Your task to perform on an android device: open app "Viber Messenger" Image 0: 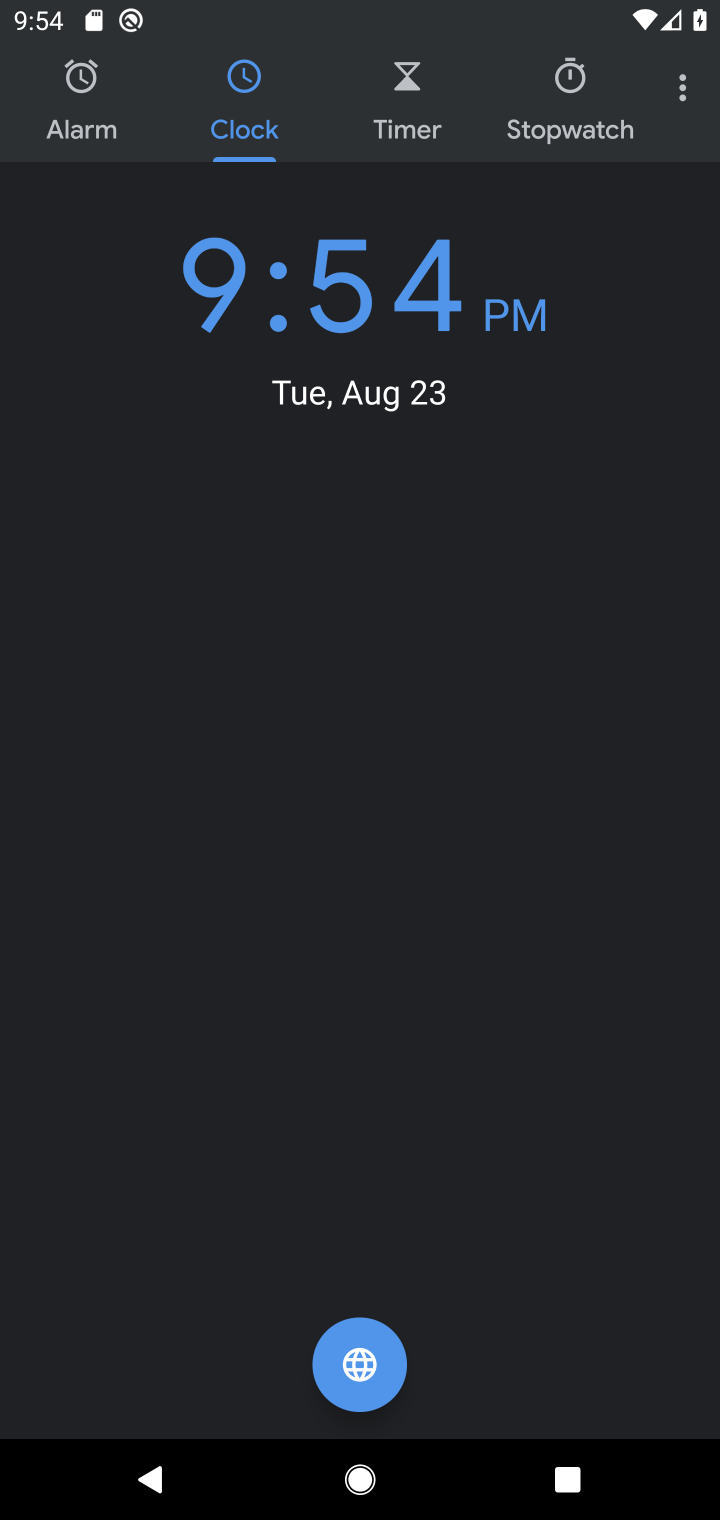
Step 0: press home button
Your task to perform on an android device: open app "Viber Messenger" Image 1: 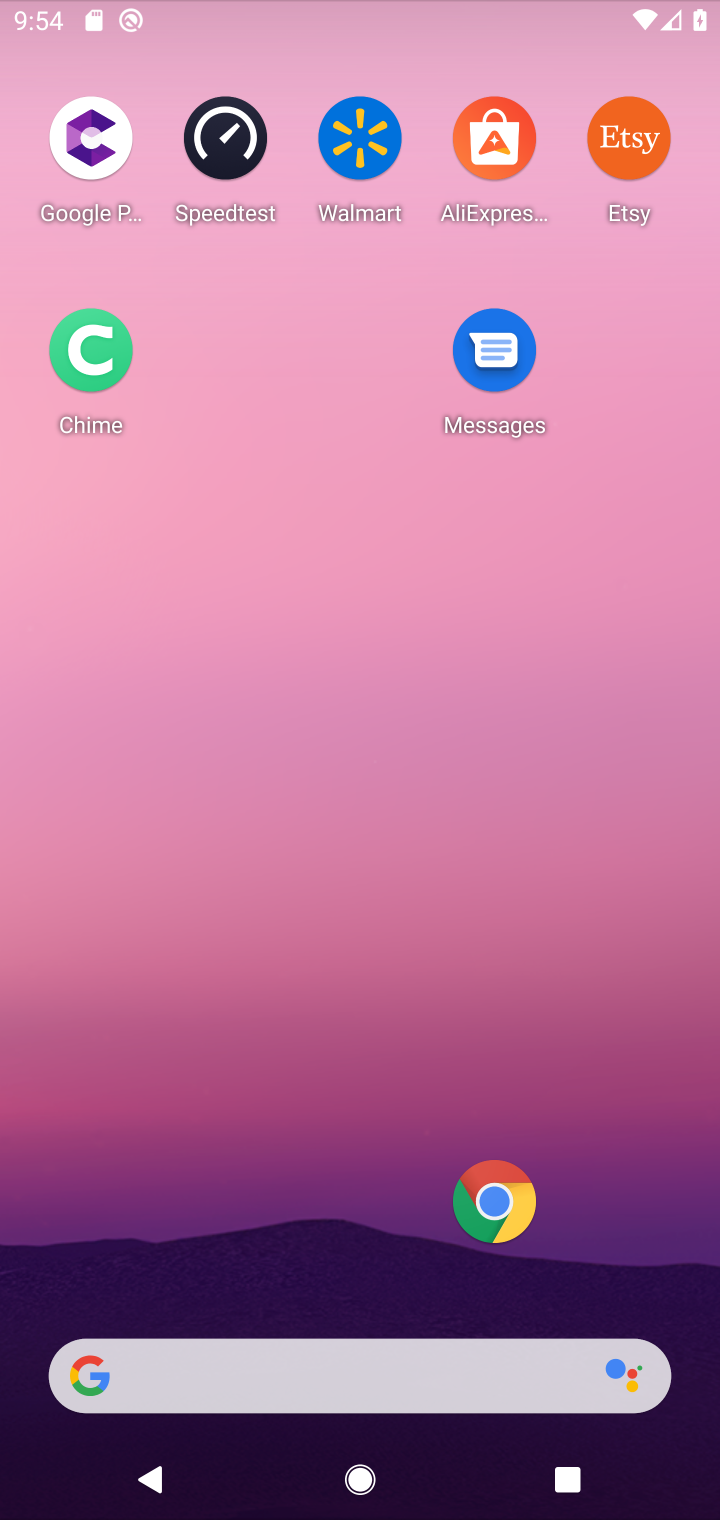
Step 1: drag from (286, 1090) to (335, 261)
Your task to perform on an android device: open app "Viber Messenger" Image 2: 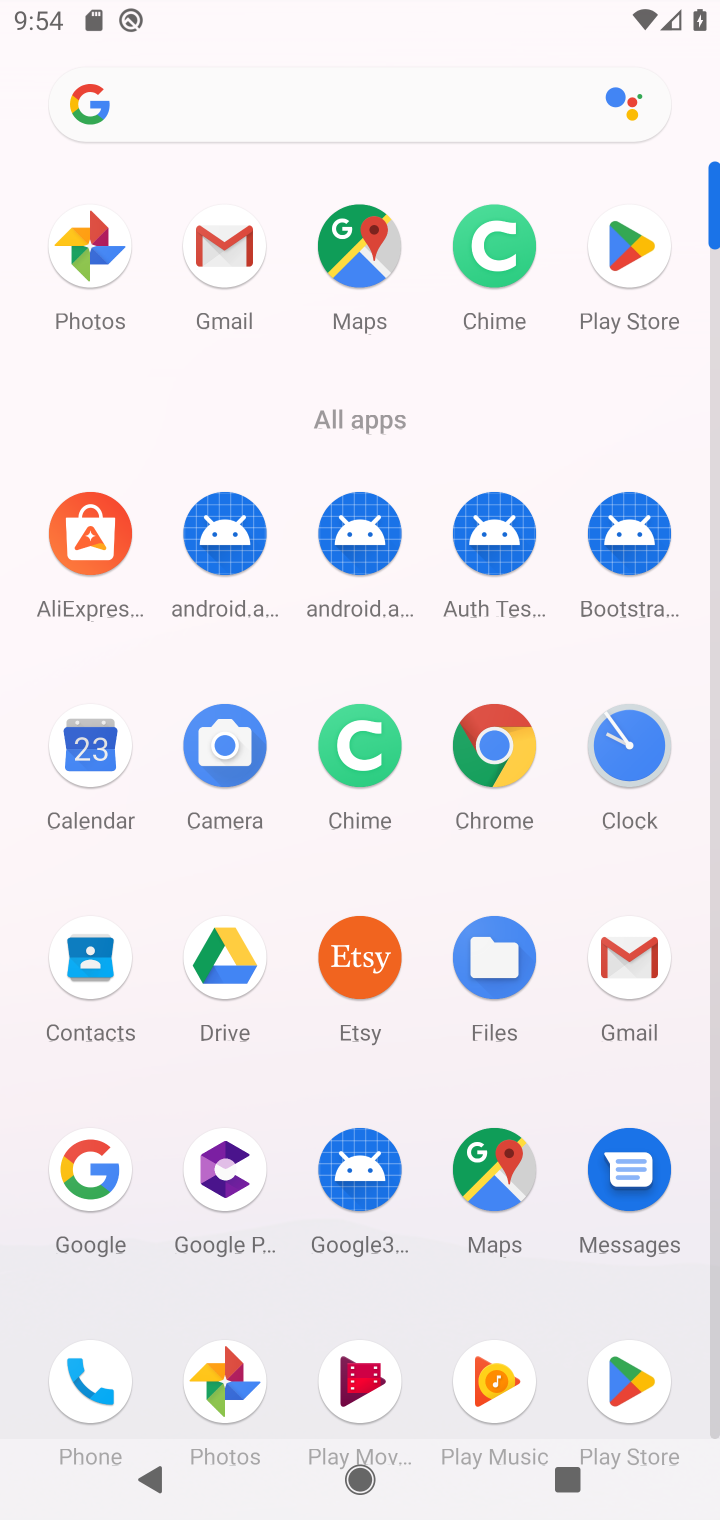
Step 2: click (629, 240)
Your task to perform on an android device: open app "Viber Messenger" Image 3: 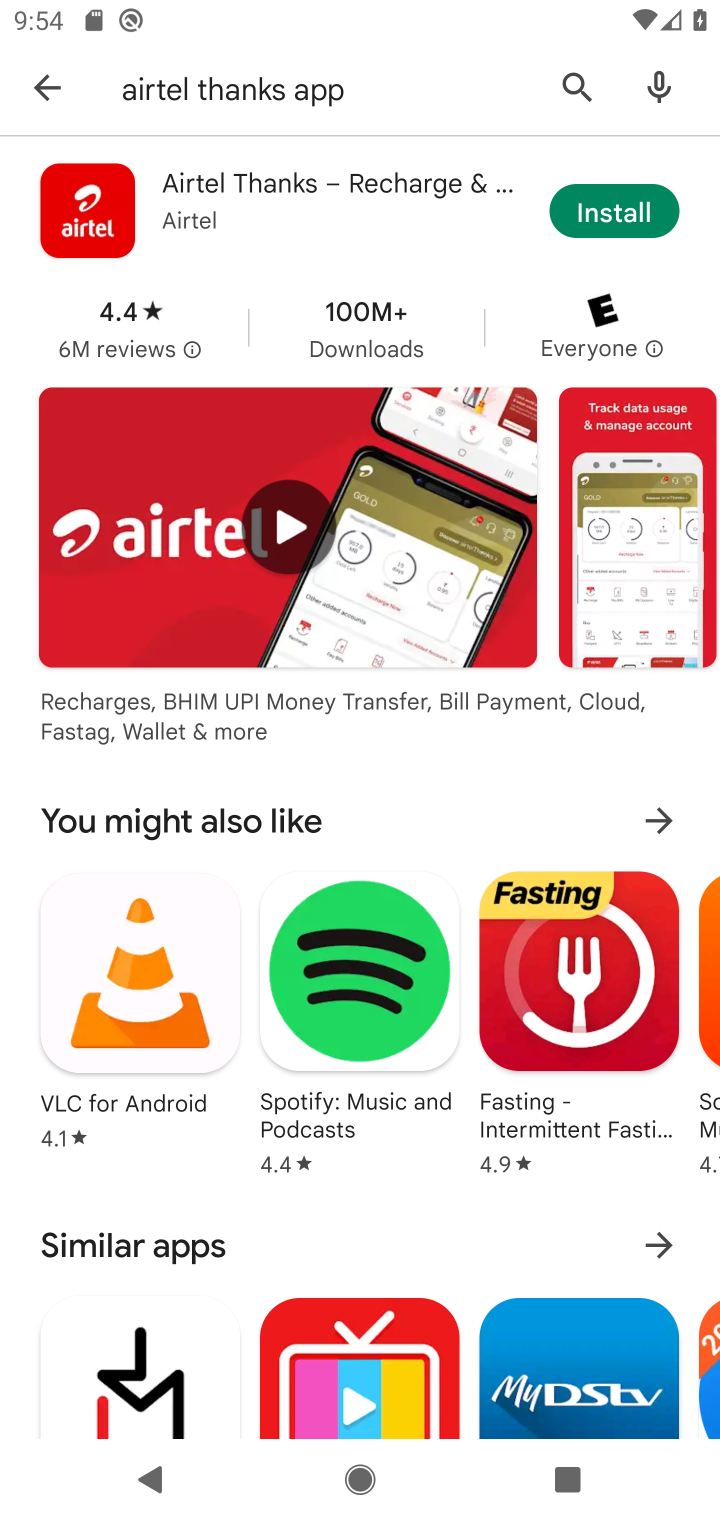
Step 3: click (59, 77)
Your task to perform on an android device: open app "Viber Messenger" Image 4: 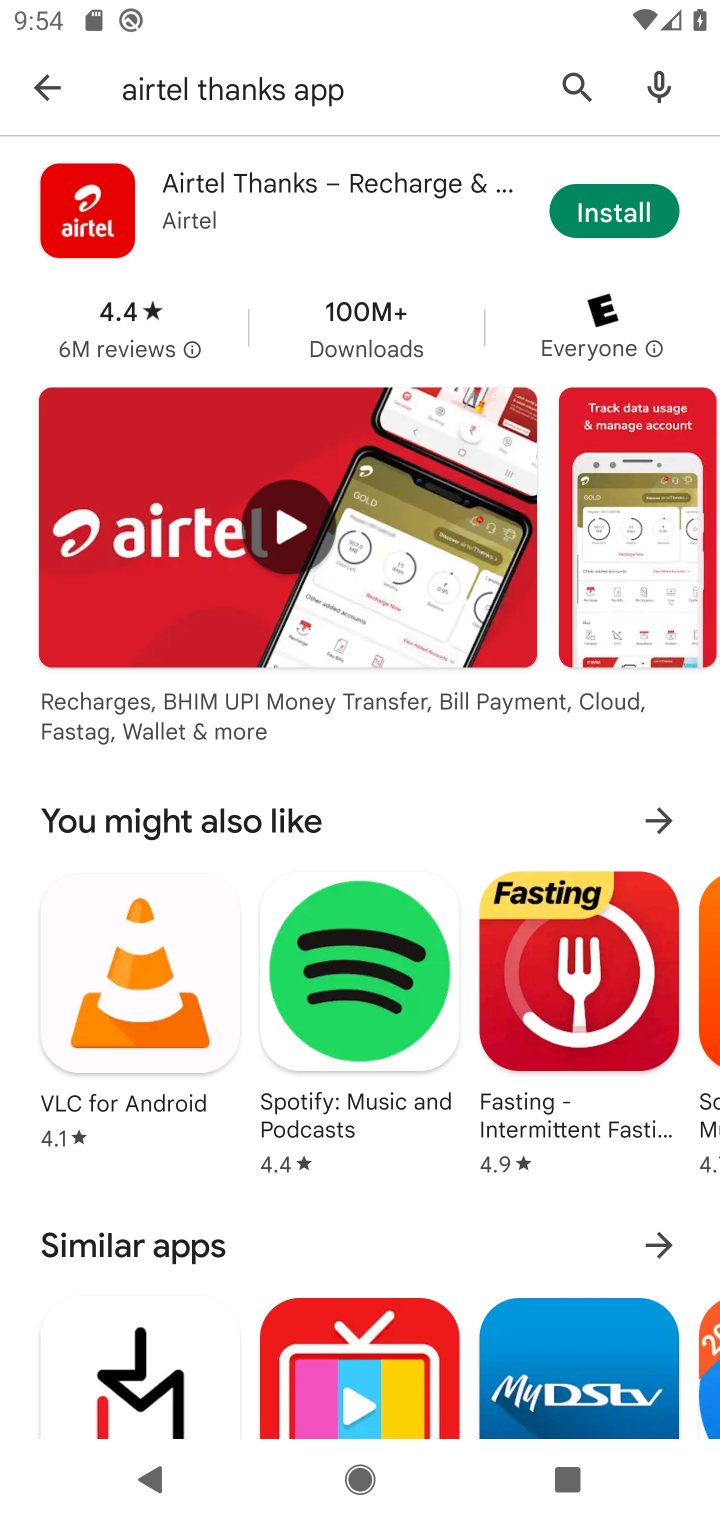
Step 4: click (59, 77)
Your task to perform on an android device: open app "Viber Messenger" Image 5: 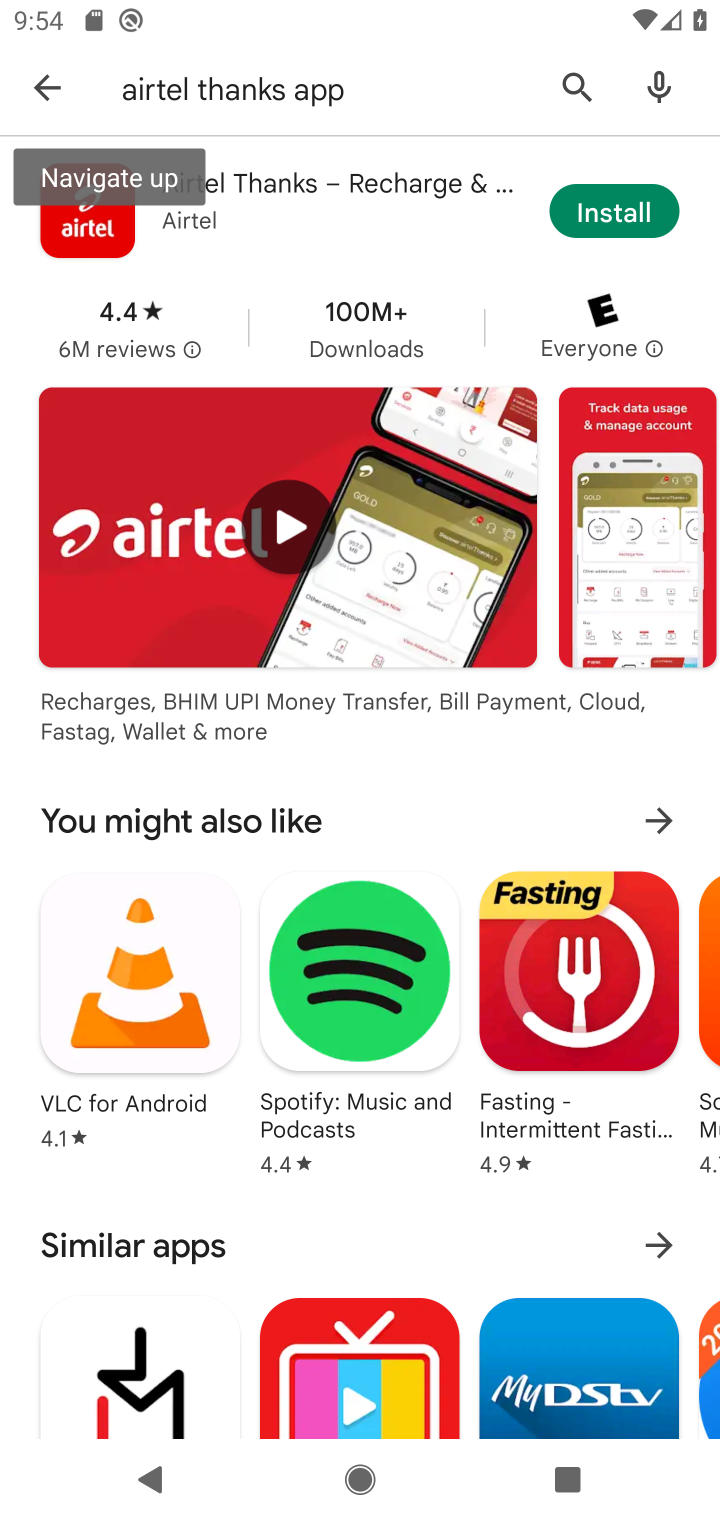
Step 5: click (575, 88)
Your task to perform on an android device: open app "Viber Messenger" Image 6: 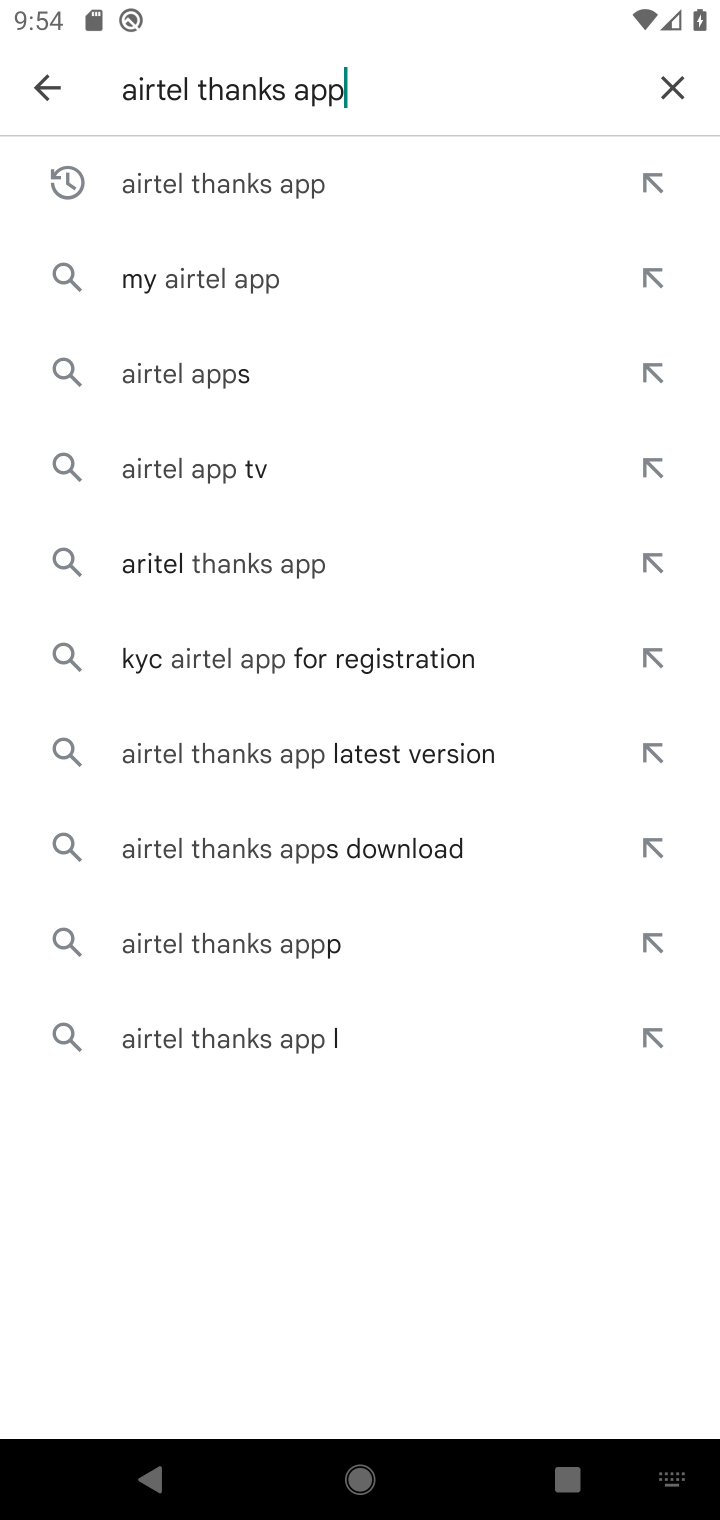
Step 6: click (671, 76)
Your task to perform on an android device: open app "Viber Messenger" Image 7: 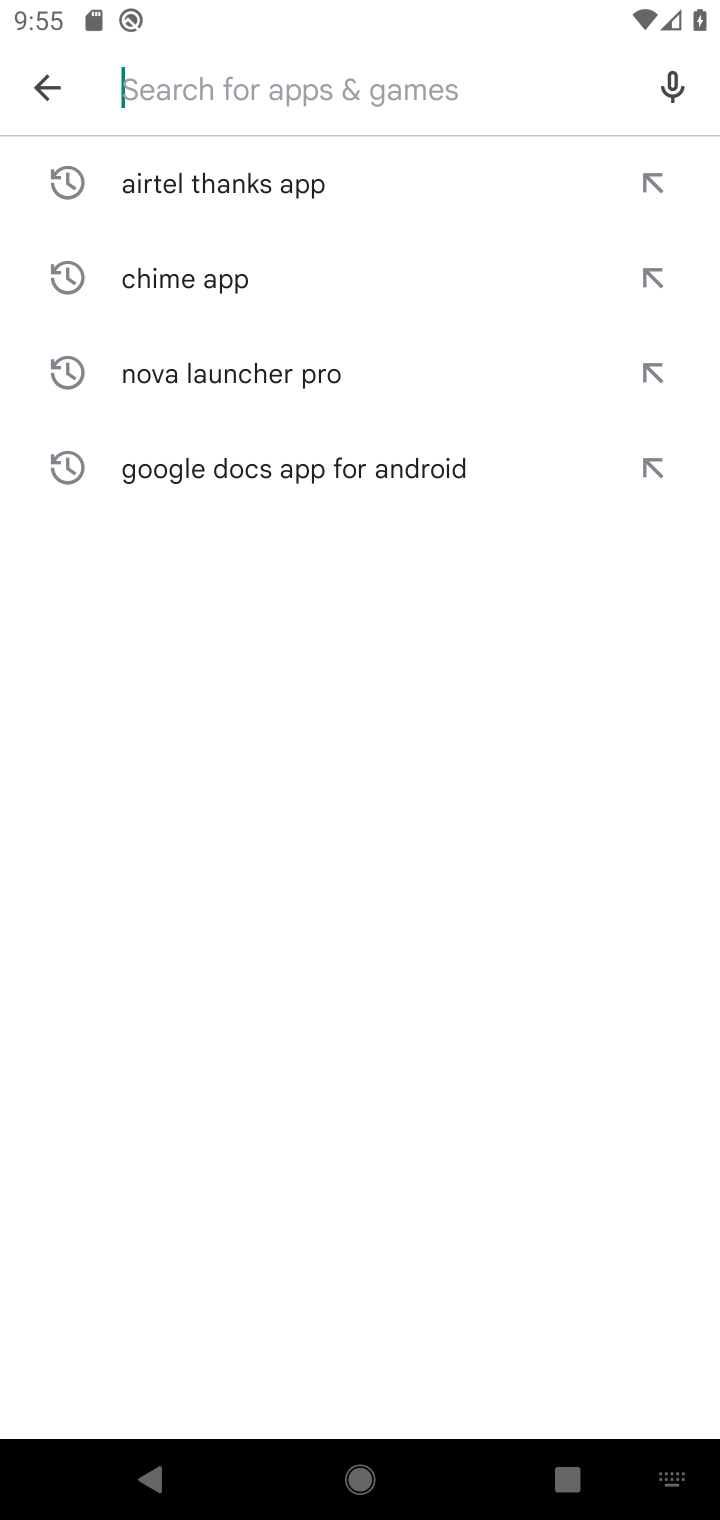
Step 7: click (316, 75)
Your task to perform on an android device: open app "Viber Messenger" Image 8: 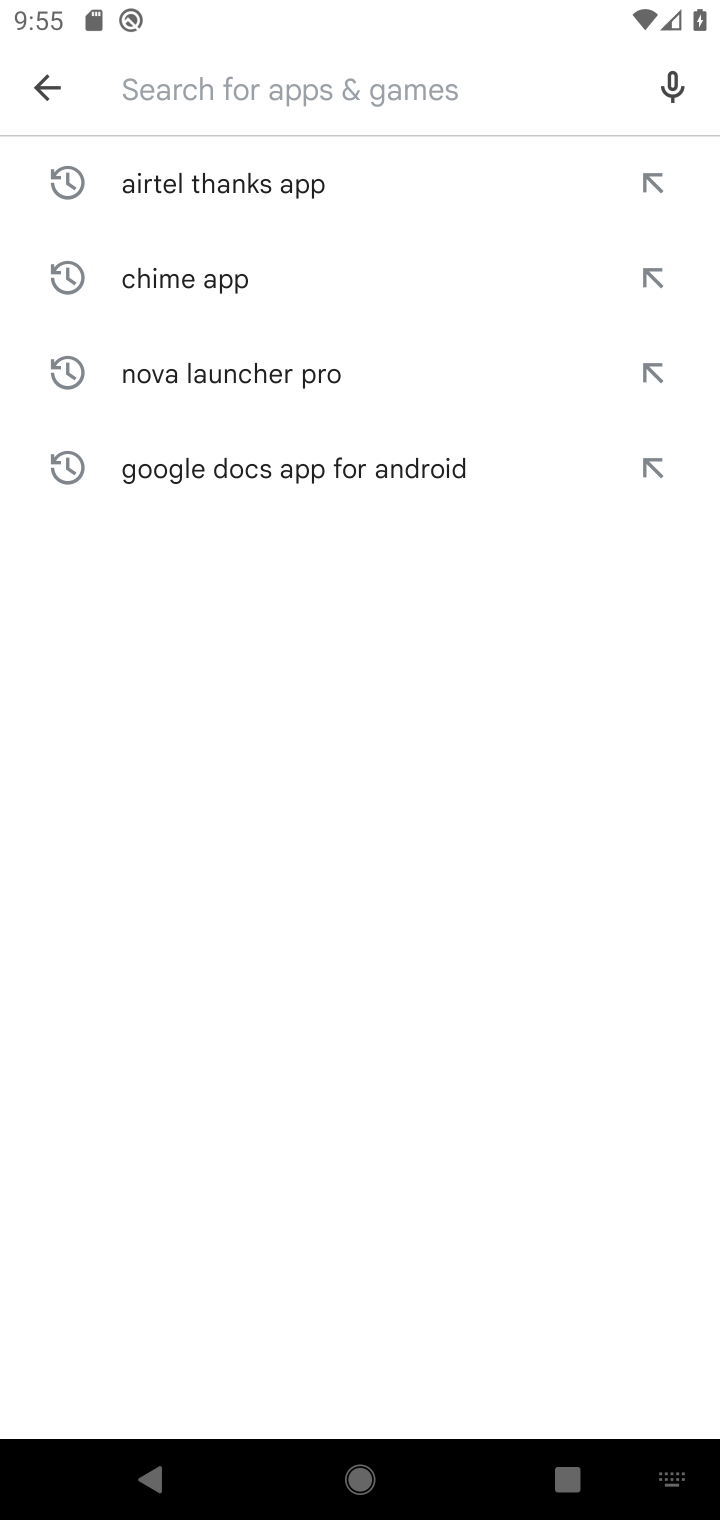
Step 8: type "Viber Messenger "
Your task to perform on an android device: open app "Viber Messenger" Image 9: 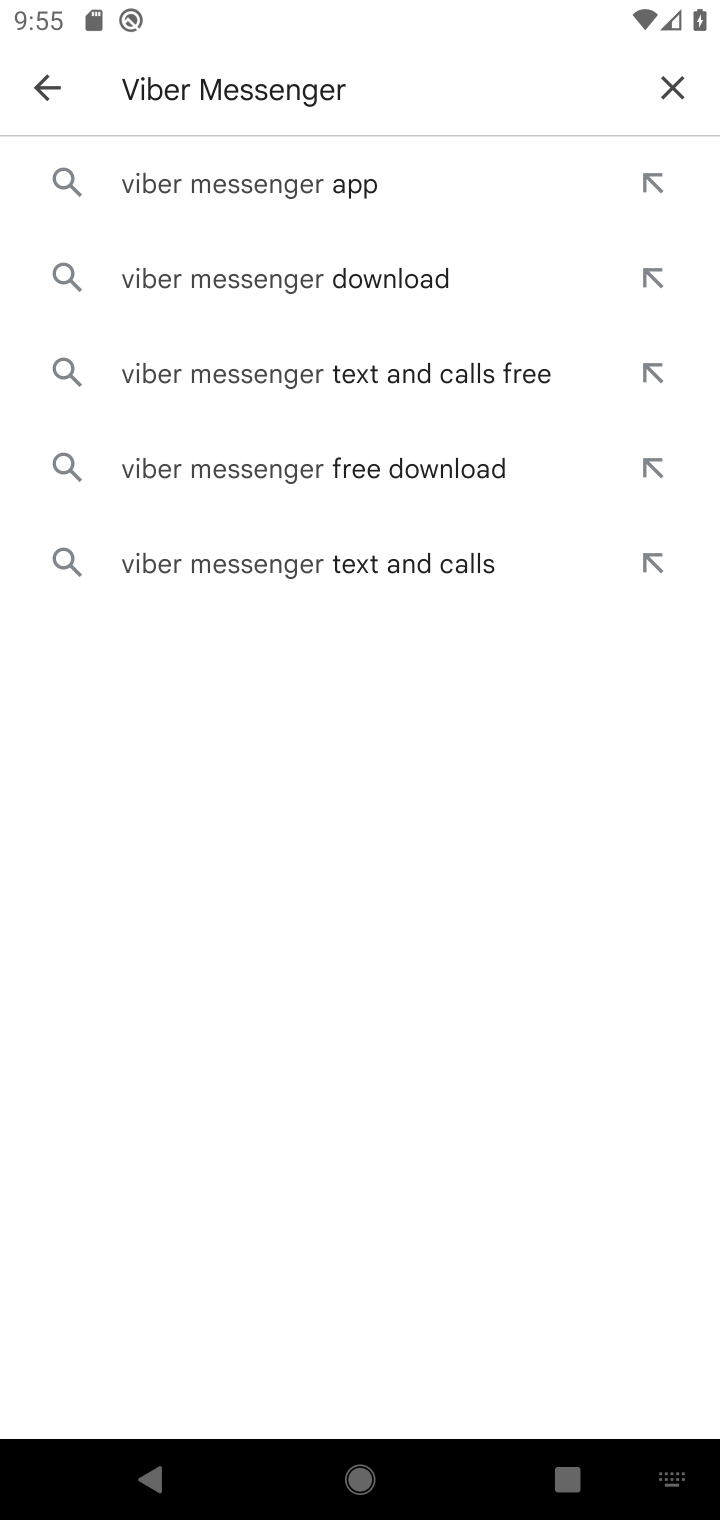
Step 9: click (260, 181)
Your task to perform on an android device: open app "Viber Messenger" Image 10: 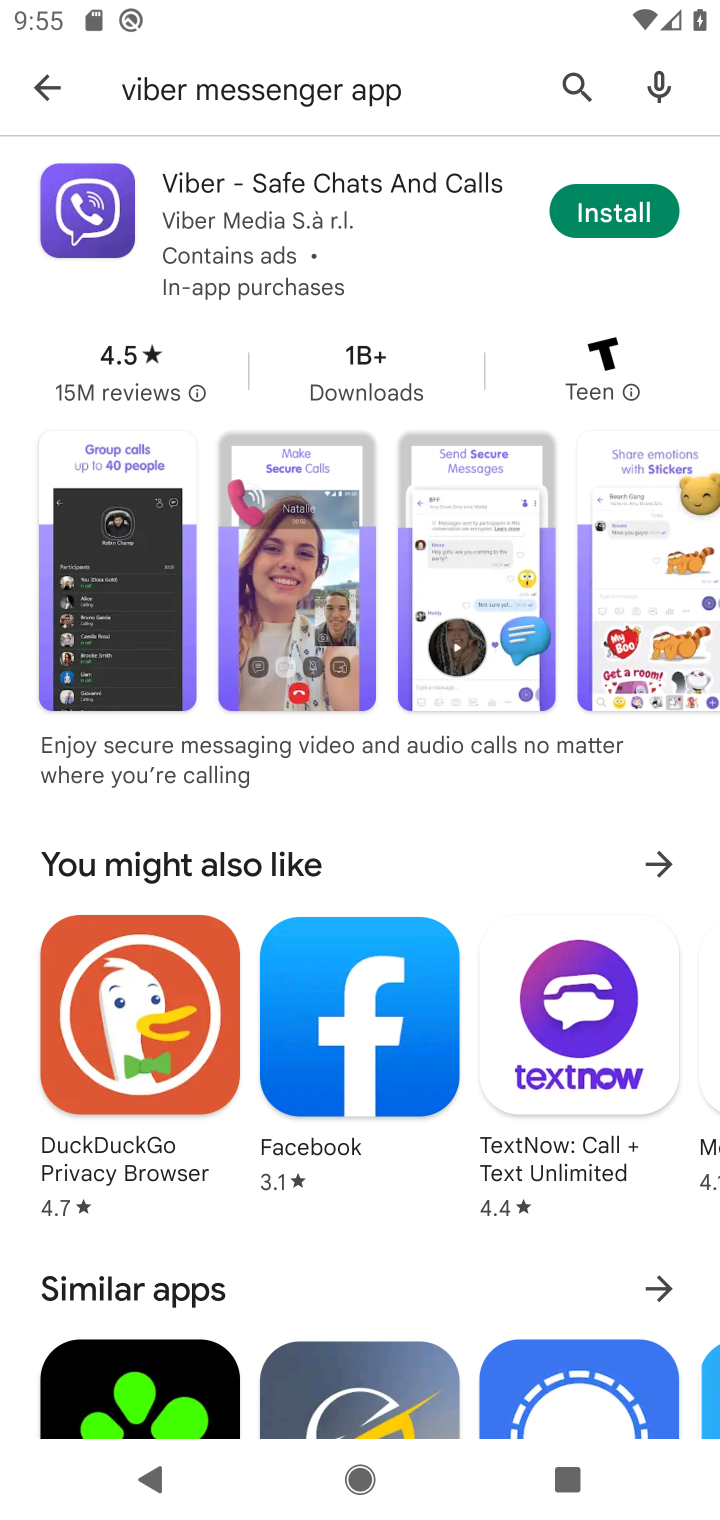
Step 10: click (625, 213)
Your task to perform on an android device: open app "Viber Messenger" Image 11: 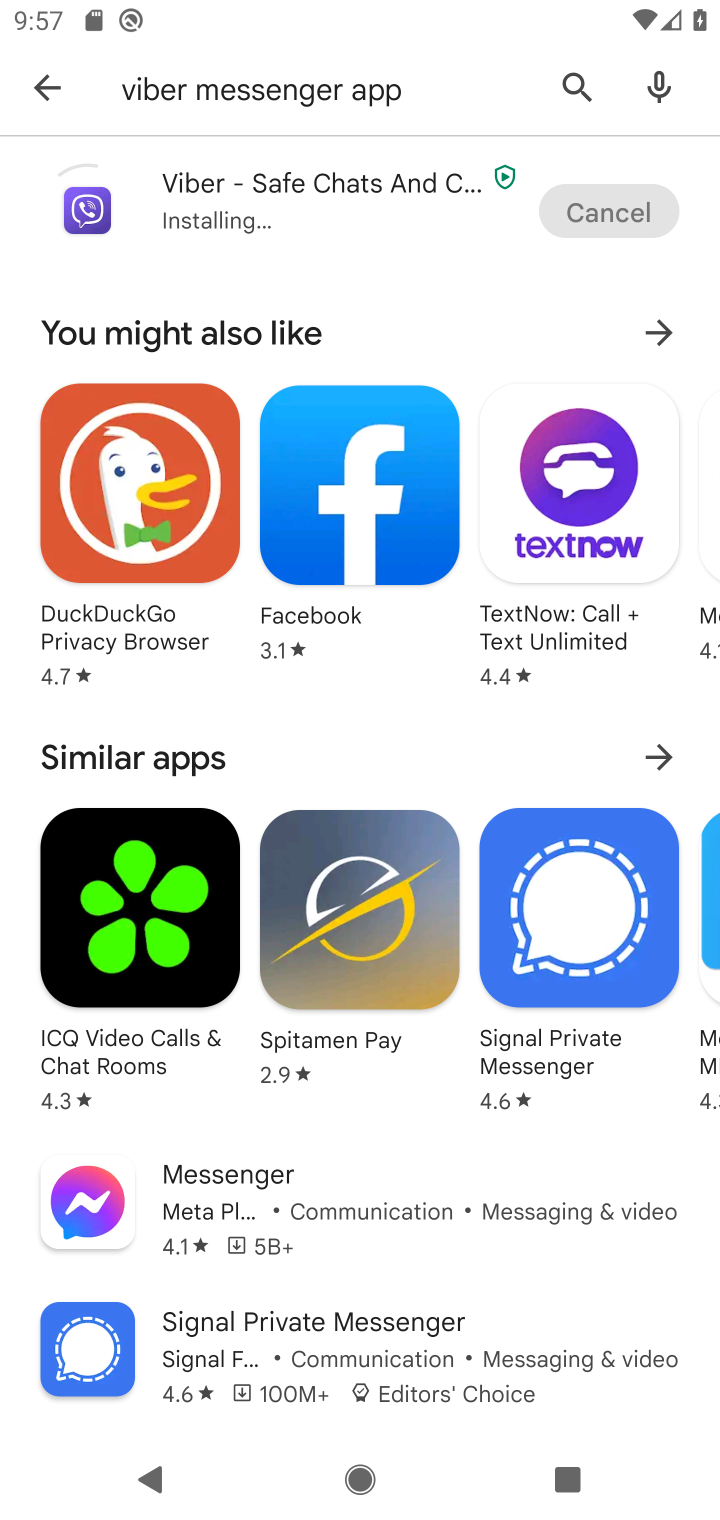
Step 11: task complete